Your task to perform on an android device: Go to network settings Image 0: 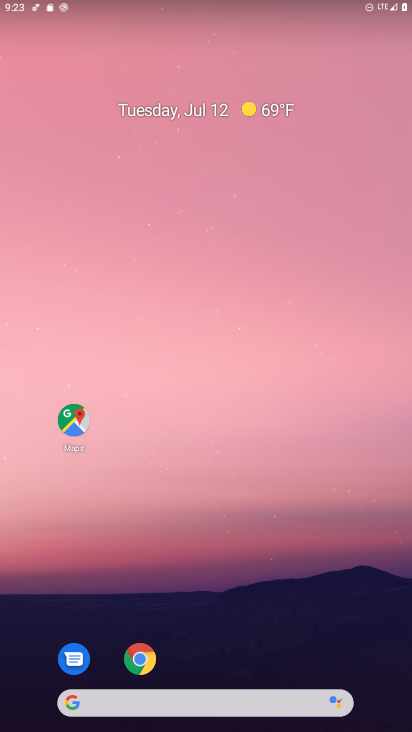
Step 0: drag from (222, 723) to (221, 126)
Your task to perform on an android device: Go to network settings Image 1: 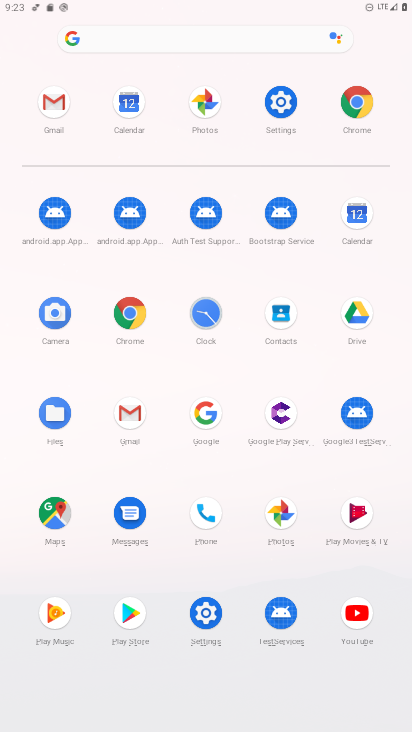
Step 1: click (280, 99)
Your task to perform on an android device: Go to network settings Image 2: 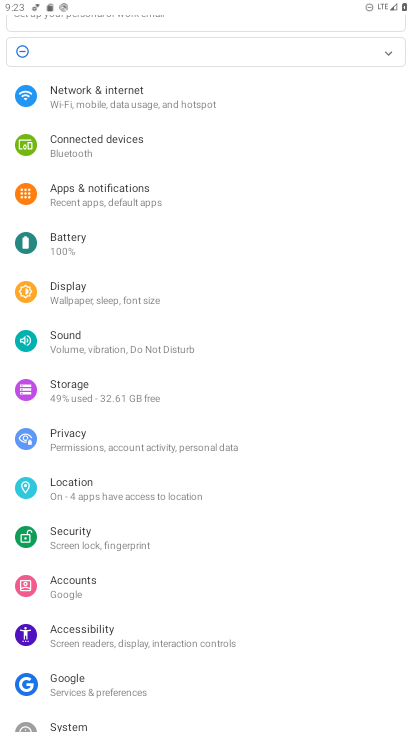
Step 2: click (69, 96)
Your task to perform on an android device: Go to network settings Image 3: 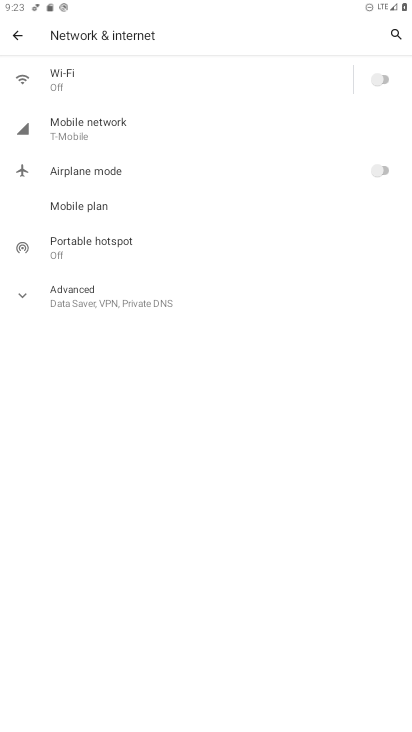
Step 3: click (75, 119)
Your task to perform on an android device: Go to network settings Image 4: 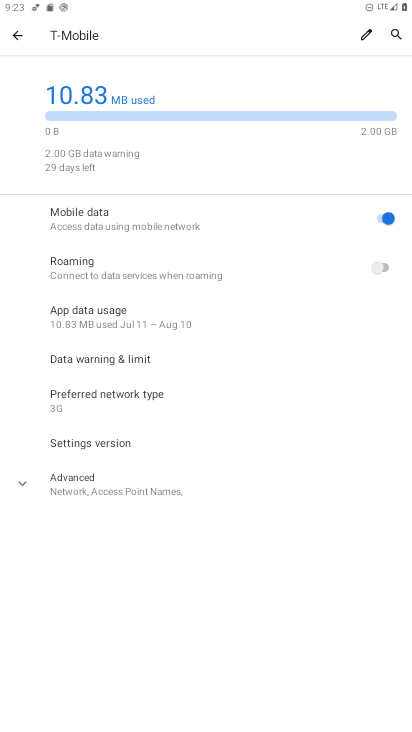
Step 4: task complete